Your task to perform on an android device: open a new tab in the chrome app Image 0: 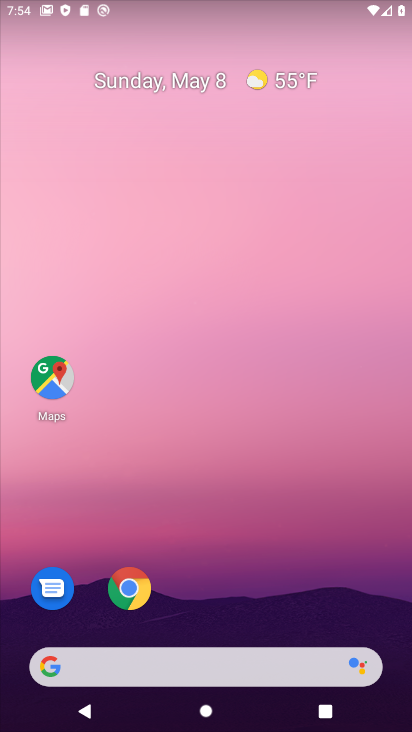
Step 0: drag from (310, 599) to (186, 129)
Your task to perform on an android device: open a new tab in the chrome app Image 1: 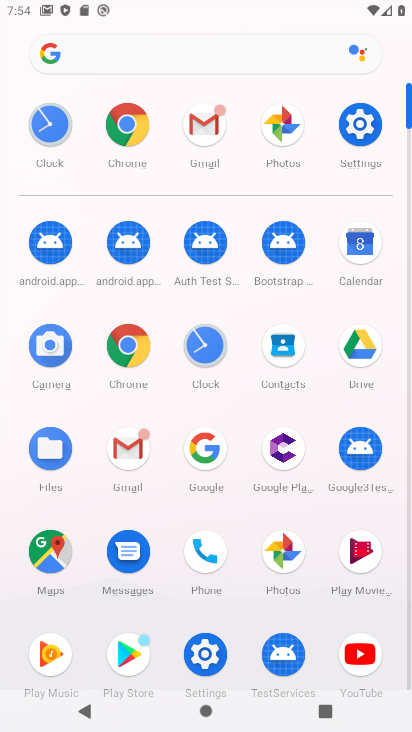
Step 1: click (134, 340)
Your task to perform on an android device: open a new tab in the chrome app Image 2: 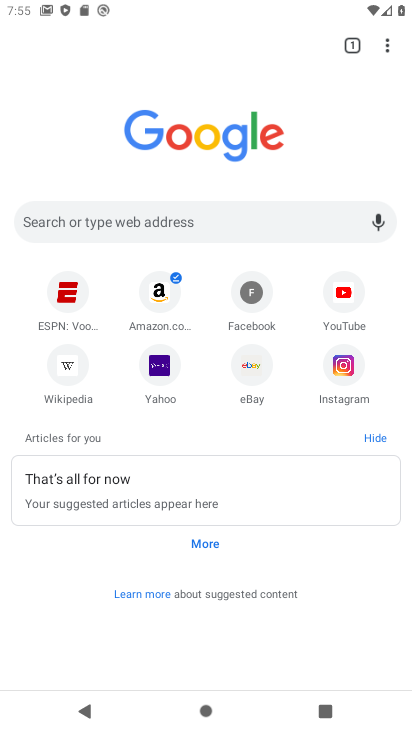
Step 2: click (353, 47)
Your task to perform on an android device: open a new tab in the chrome app Image 3: 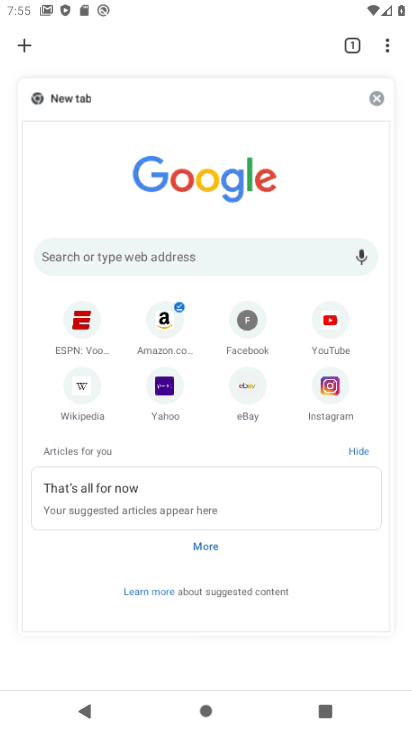
Step 3: click (279, 101)
Your task to perform on an android device: open a new tab in the chrome app Image 4: 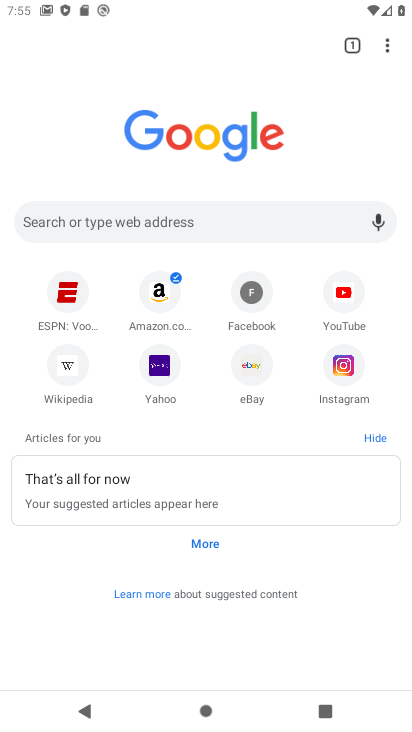
Step 4: click (312, 169)
Your task to perform on an android device: open a new tab in the chrome app Image 5: 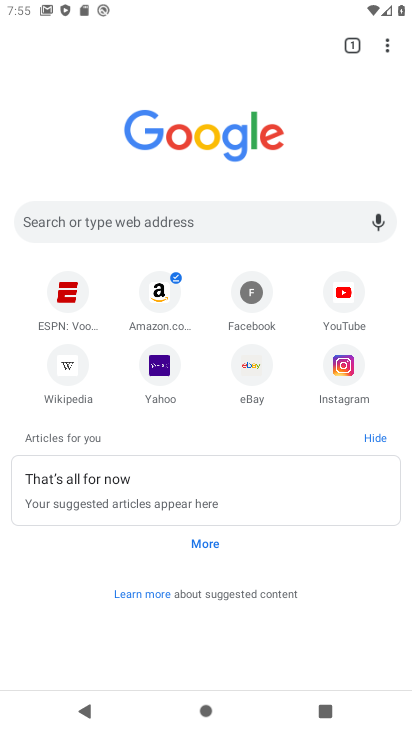
Step 5: click (385, 47)
Your task to perform on an android device: open a new tab in the chrome app Image 6: 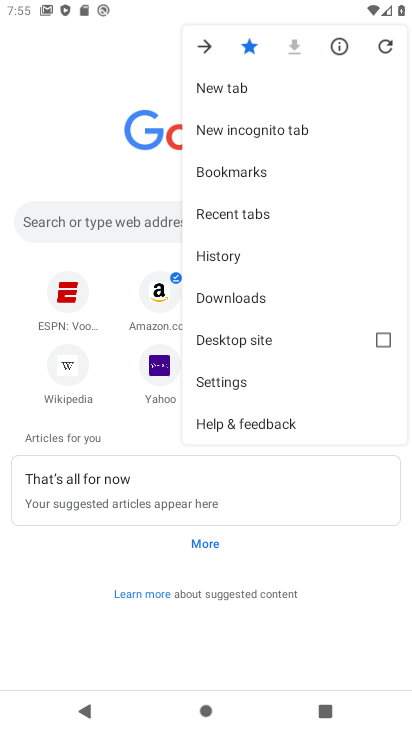
Step 6: click (240, 103)
Your task to perform on an android device: open a new tab in the chrome app Image 7: 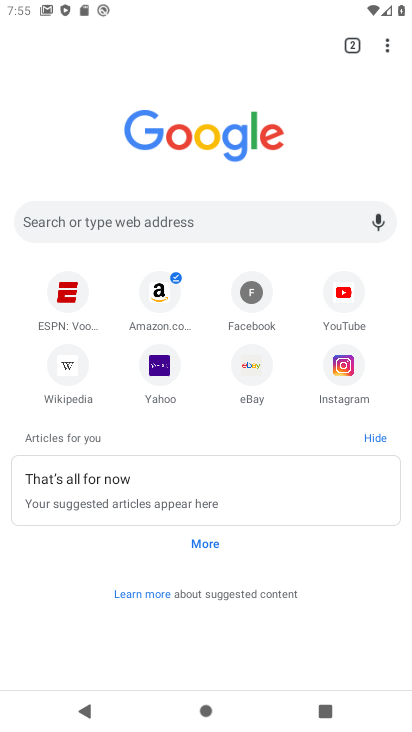
Step 7: task complete